Your task to perform on an android device: Open the calendar and show me this week's events? Image 0: 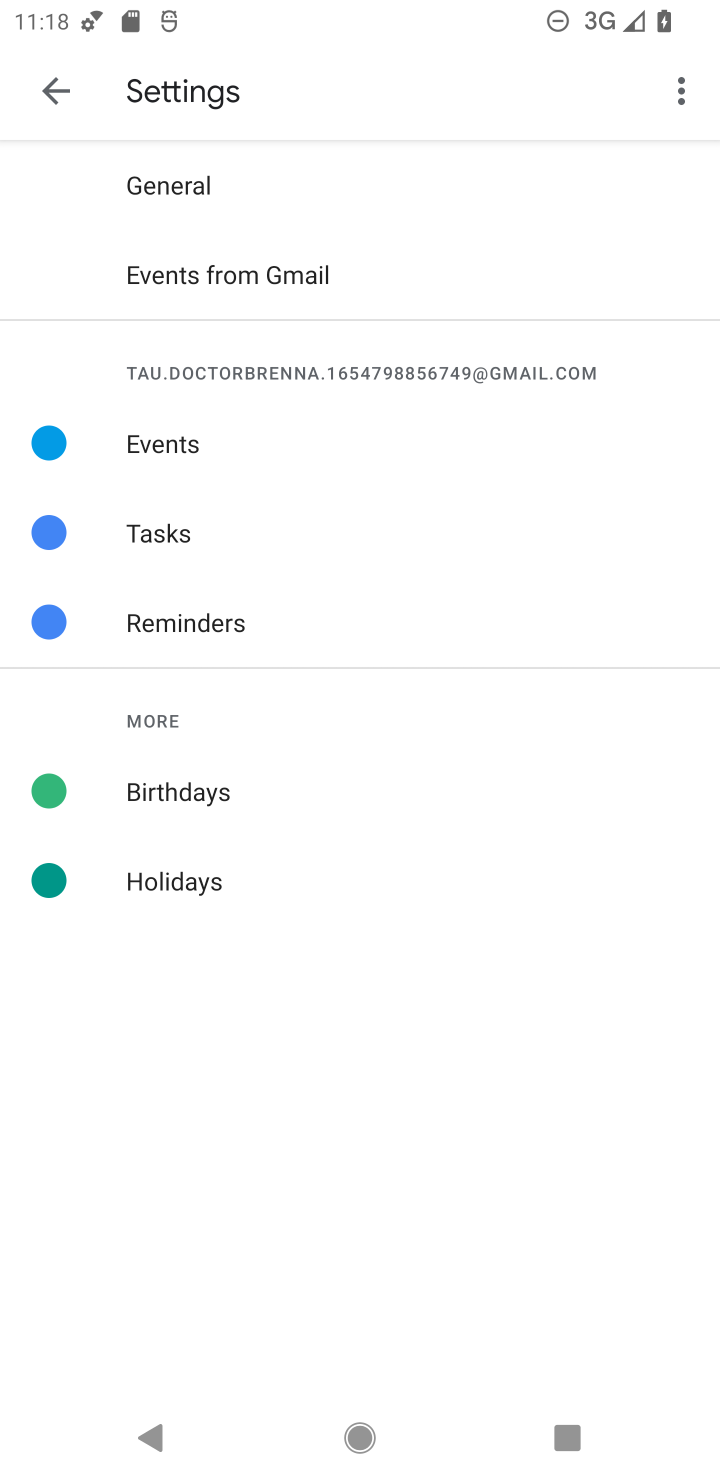
Step 0: press home button
Your task to perform on an android device: Open the calendar and show me this week's events? Image 1: 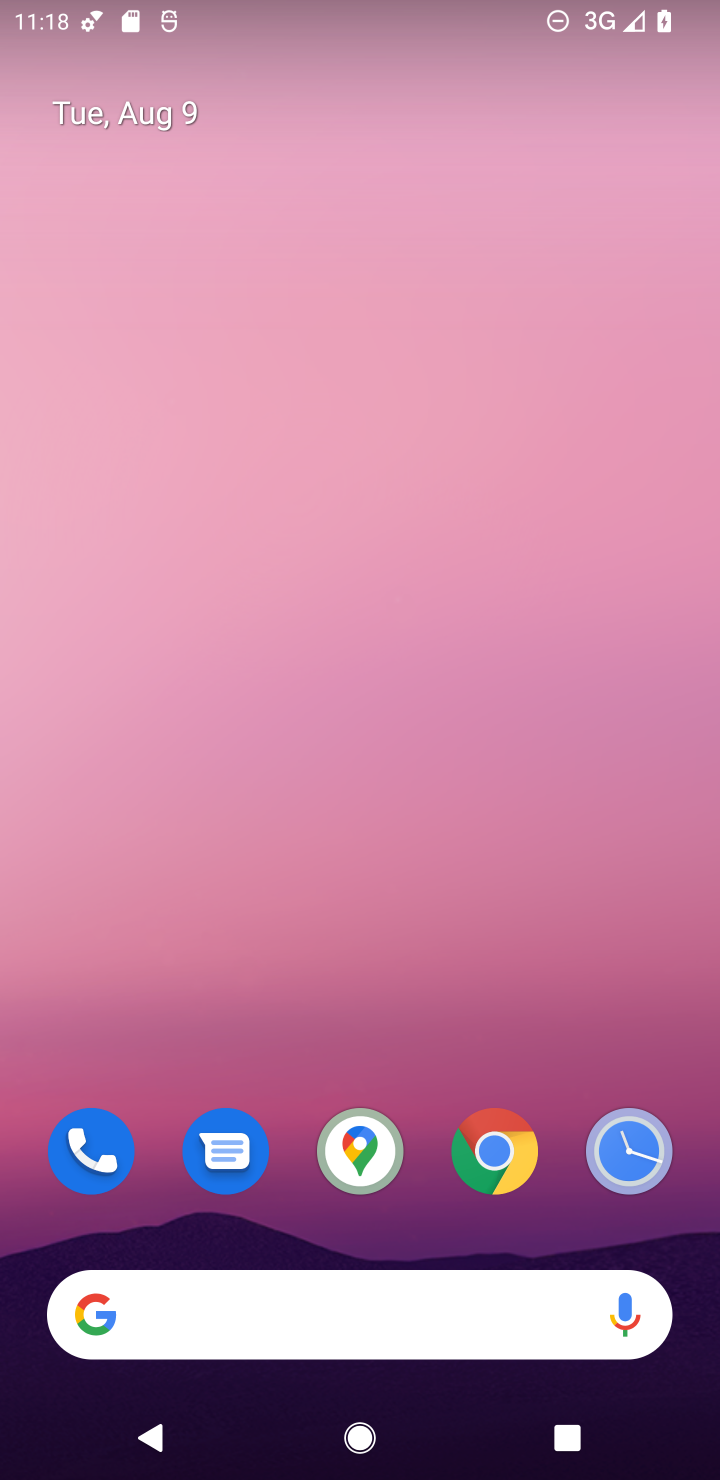
Step 1: drag from (303, 1220) to (404, 186)
Your task to perform on an android device: Open the calendar and show me this week's events? Image 2: 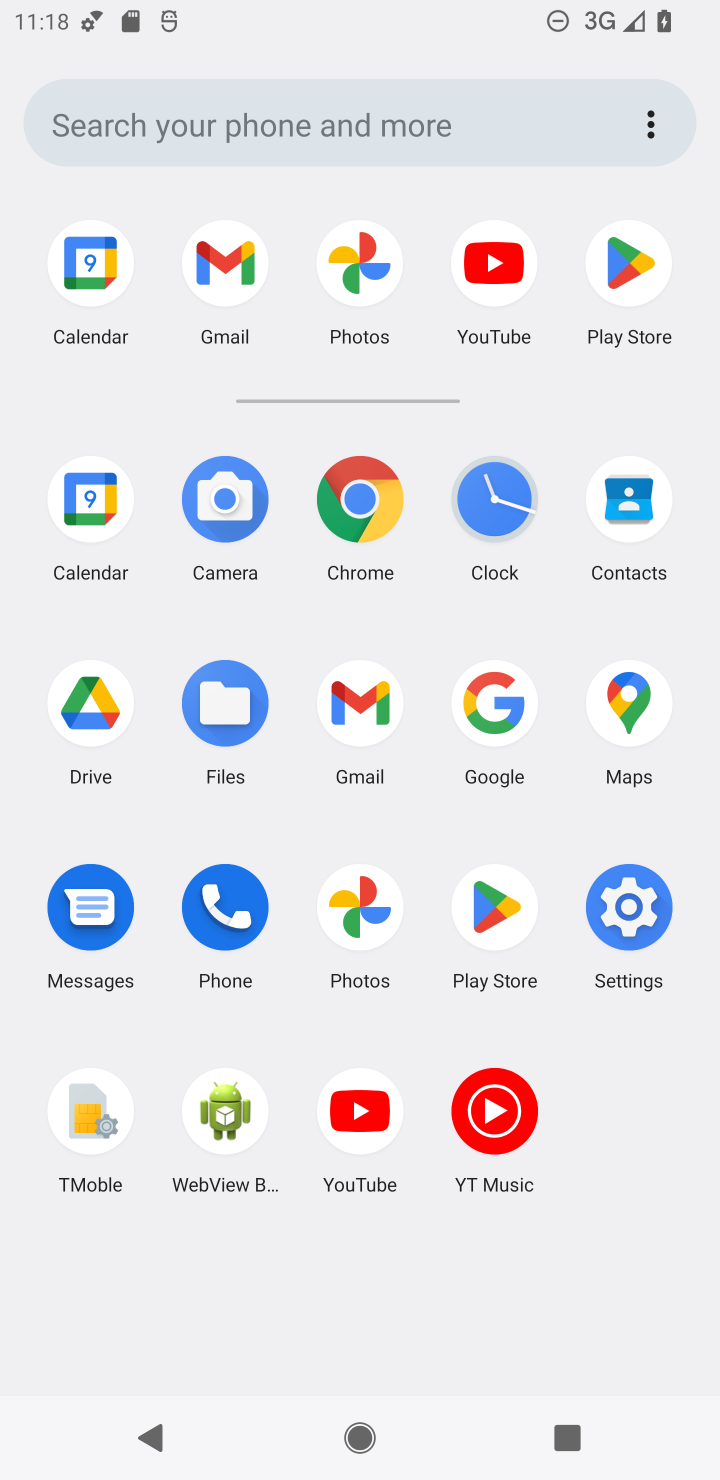
Step 2: click (71, 275)
Your task to perform on an android device: Open the calendar and show me this week's events? Image 3: 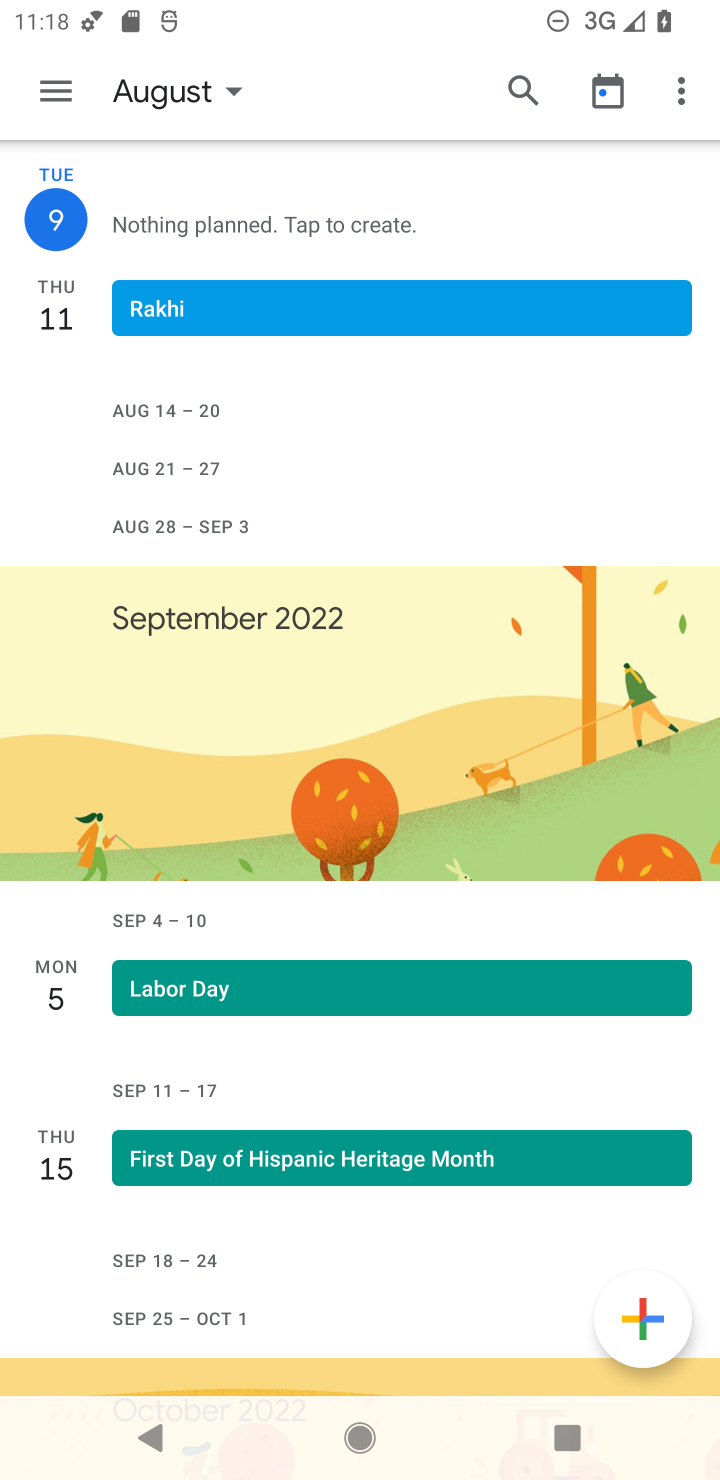
Step 3: click (101, 275)
Your task to perform on an android device: Open the calendar and show me this week's events? Image 4: 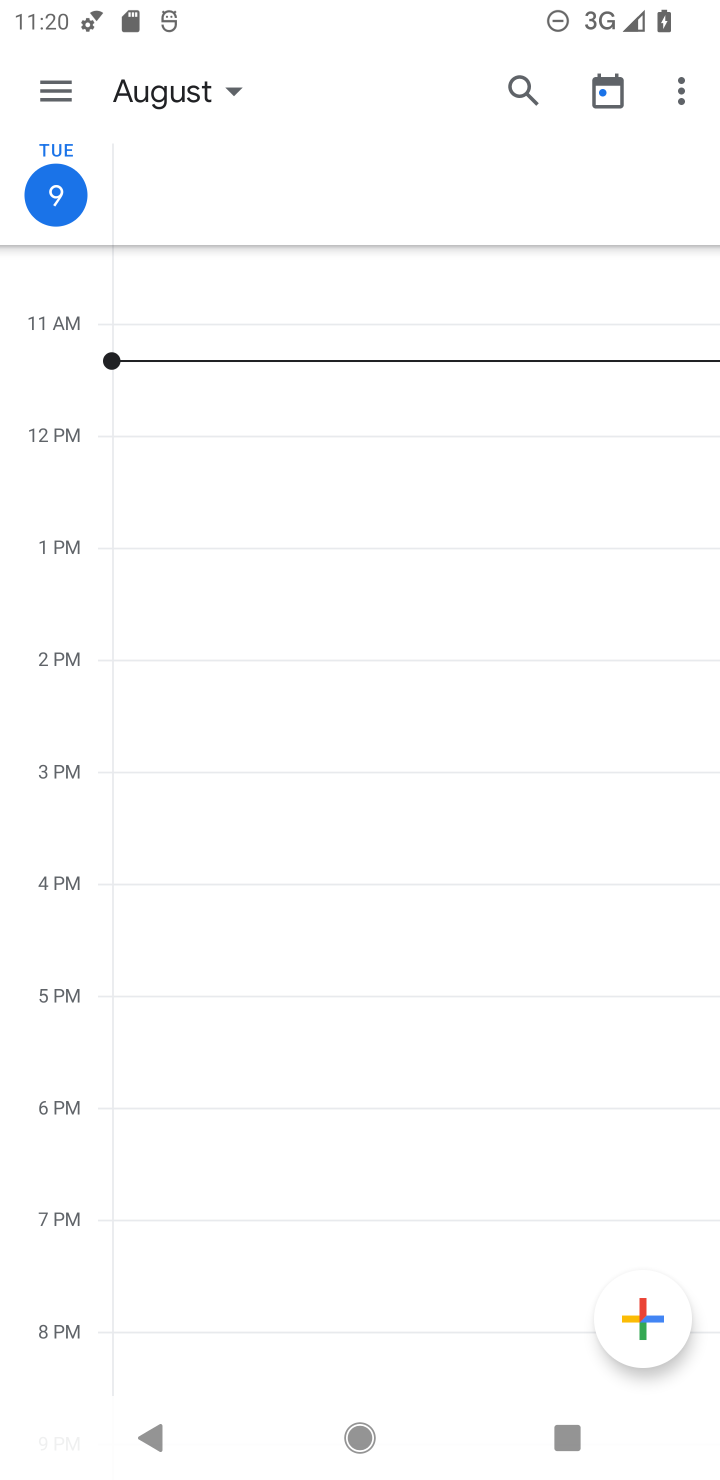
Step 4: click (55, 87)
Your task to perform on an android device: Open the calendar and show me this week's events? Image 5: 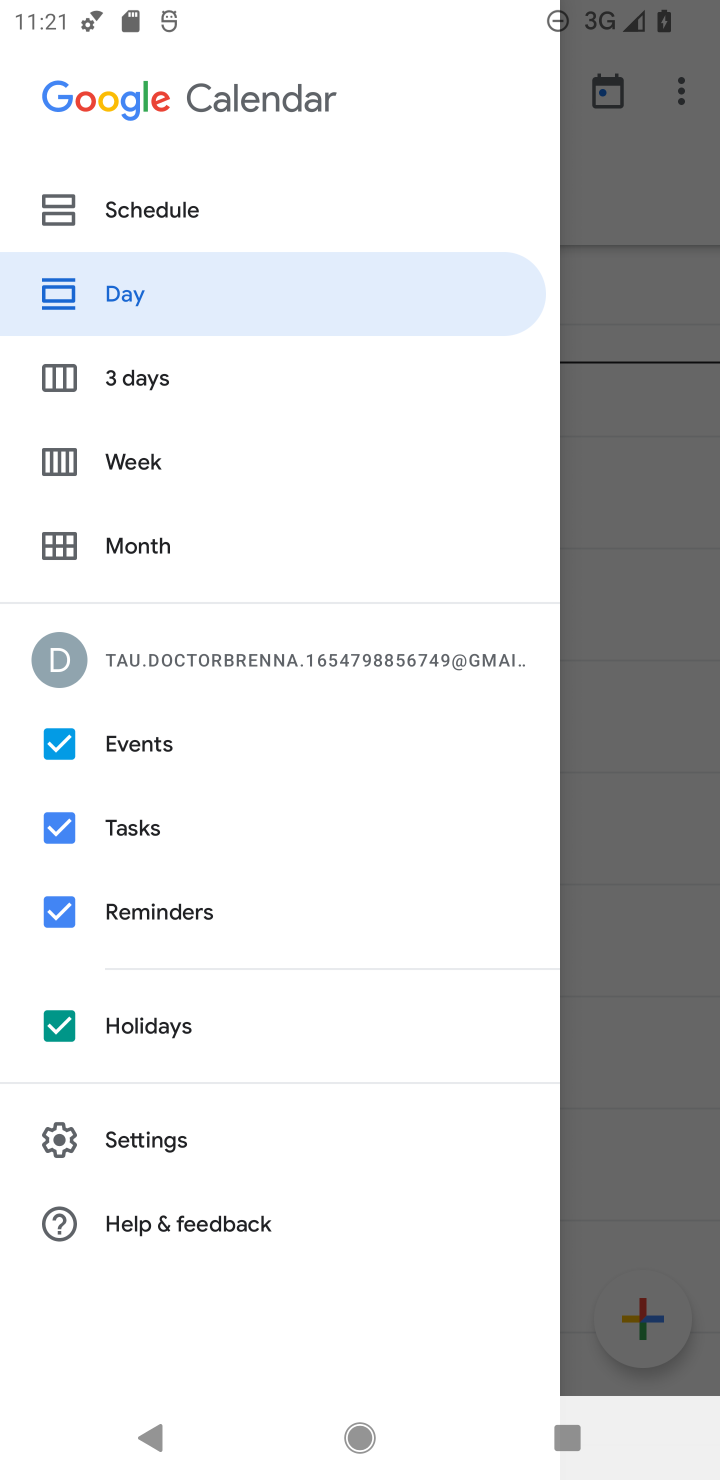
Step 5: click (109, 276)
Your task to perform on an android device: Open the calendar and show me this week's events? Image 6: 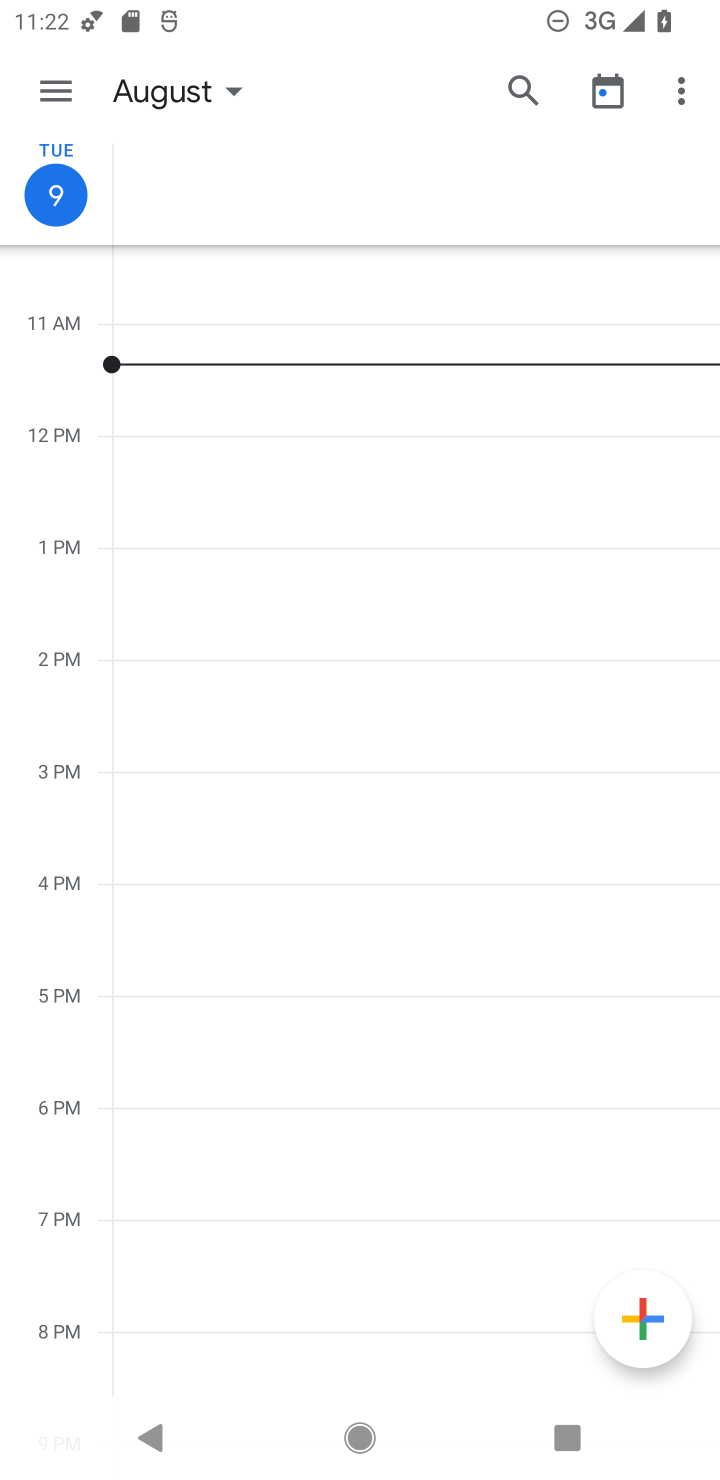
Step 6: task complete